Your task to perform on an android device: turn on airplane mode Image 0: 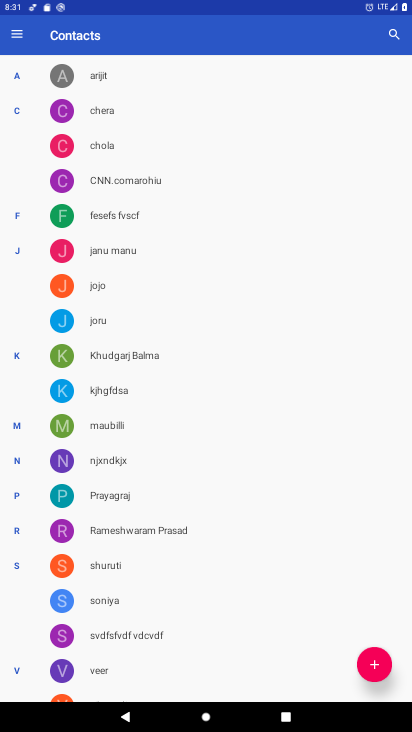
Step 0: press home button
Your task to perform on an android device: turn on airplane mode Image 1: 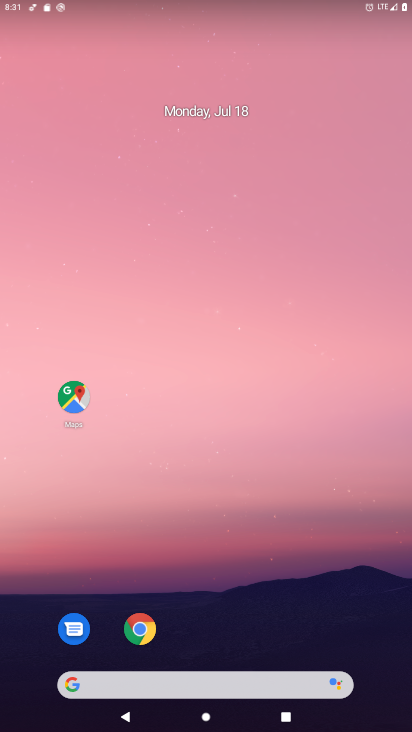
Step 1: drag from (172, 617) to (208, 14)
Your task to perform on an android device: turn on airplane mode Image 2: 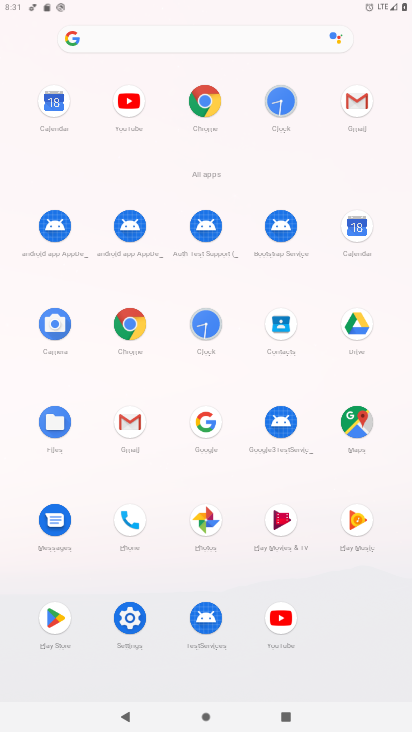
Step 2: click (120, 624)
Your task to perform on an android device: turn on airplane mode Image 3: 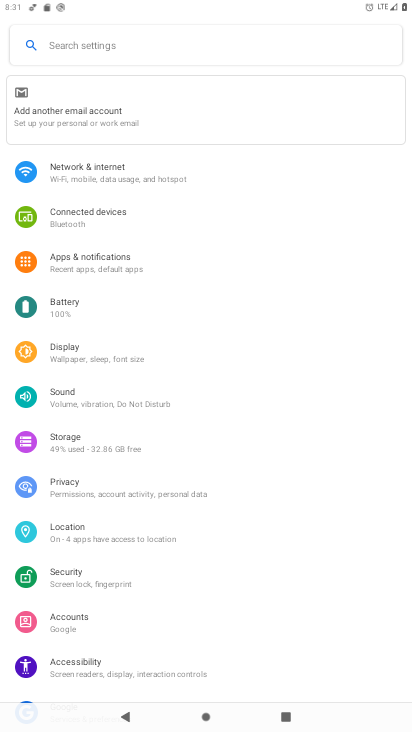
Step 3: click (129, 180)
Your task to perform on an android device: turn on airplane mode Image 4: 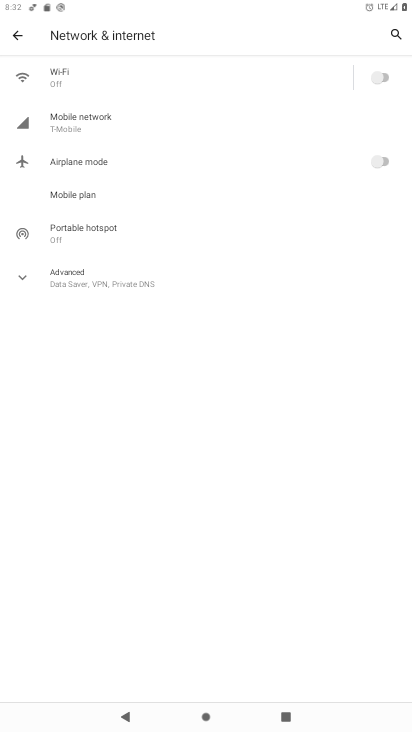
Step 4: click (394, 155)
Your task to perform on an android device: turn on airplane mode Image 5: 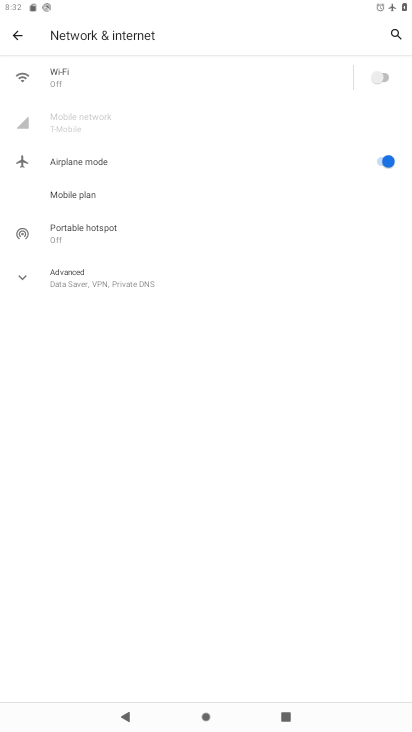
Step 5: task complete